Your task to perform on an android device: turn on javascript in the chrome app Image 0: 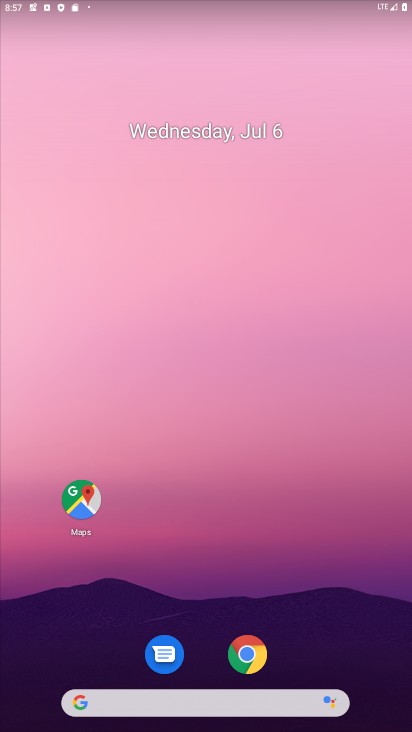
Step 0: click (235, 661)
Your task to perform on an android device: turn on javascript in the chrome app Image 1: 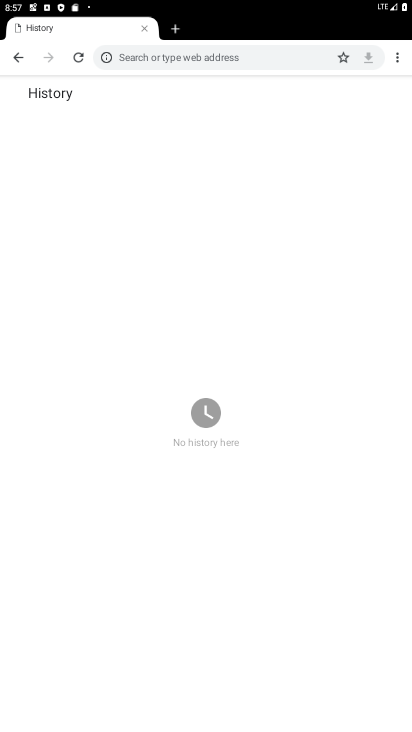
Step 1: click (394, 60)
Your task to perform on an android device: turn on javascript in the chrome app Image 2: 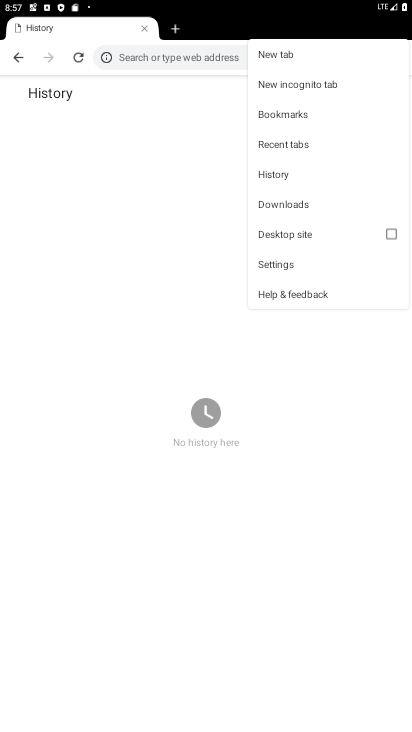
Step 2: click (278, 255)
Your task to perform on an android device: turn on javascript in the chrome app Image 3: 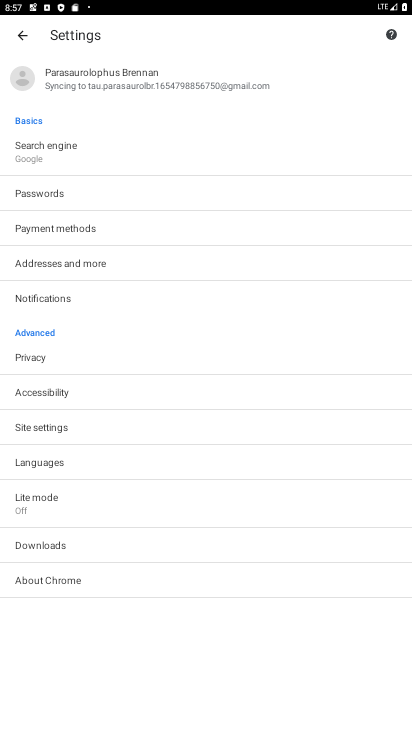
Step 3: click (97, 424)
Your task to perform on an android device: turn on javascript in the chrome app Image 4: 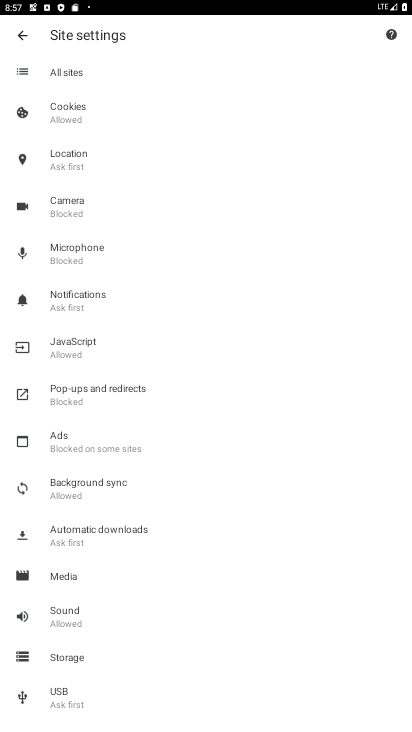
Step 4: click (88, 361)
Your task to perform on an android device: turn on javascript in the chrome app Image 5: 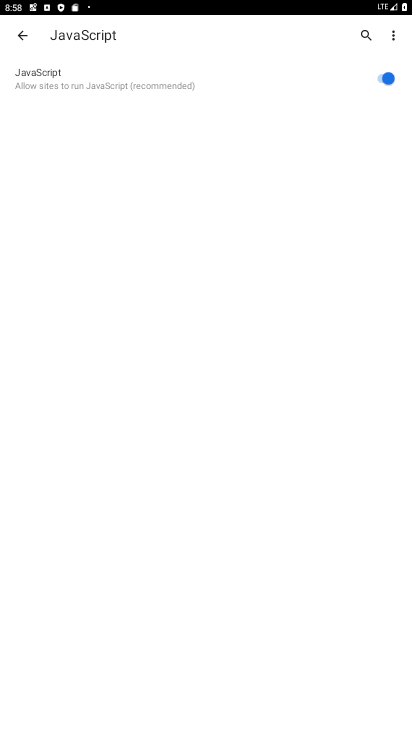
Step 5: task complete